Your task to perform on an android device: manage bookmarks in the chrome app Image 0: 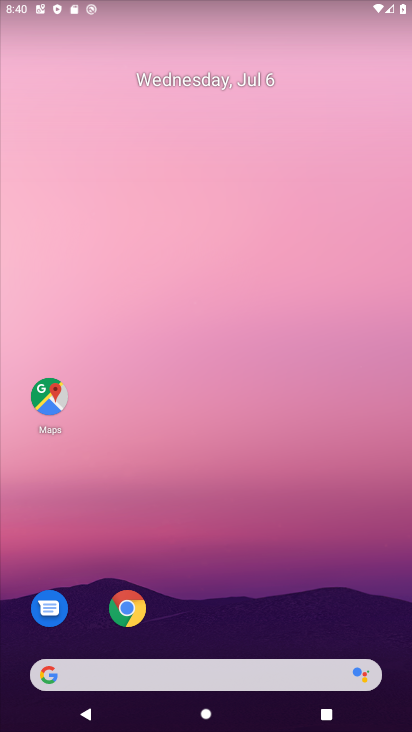
Step 0: click (114, 620)
Your task to perform on an android device: manage bookmarks in the chrome app Image 1: 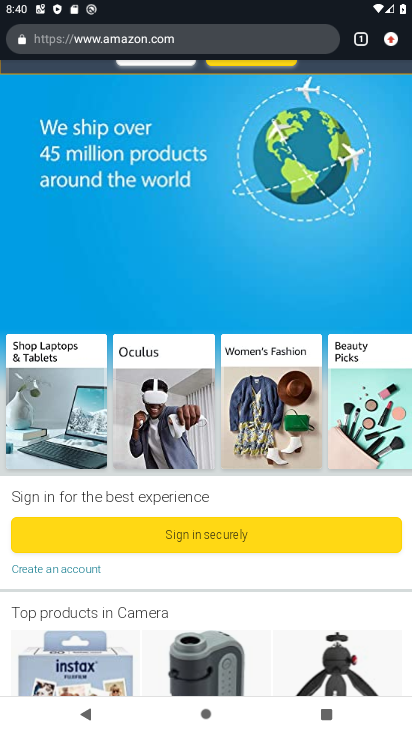
Step 1: press back button
Your task to perform on an android device: manage bookmarks in the chrome app Image 2: 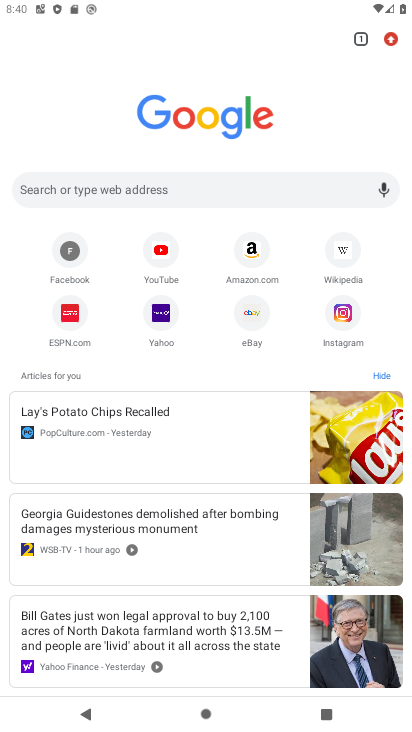
Step 2: click (392, 40)
Your task to perform on an android device: manage bookmarks in the chrome app Image 3: 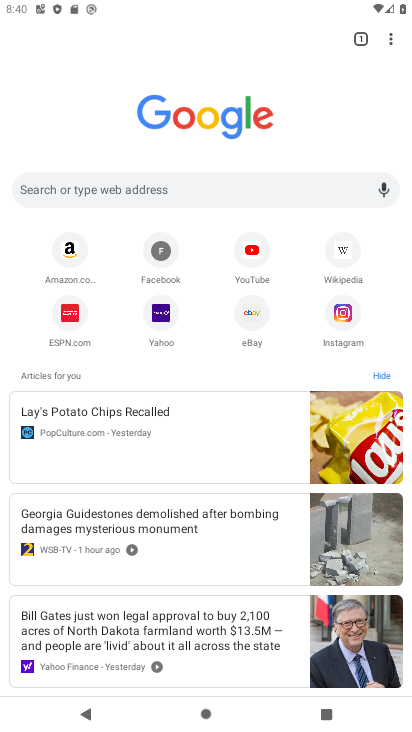
Step 3: click (392, 40)
Your task to perform on an android device: manage bookmarks in the chrome app Image 4: 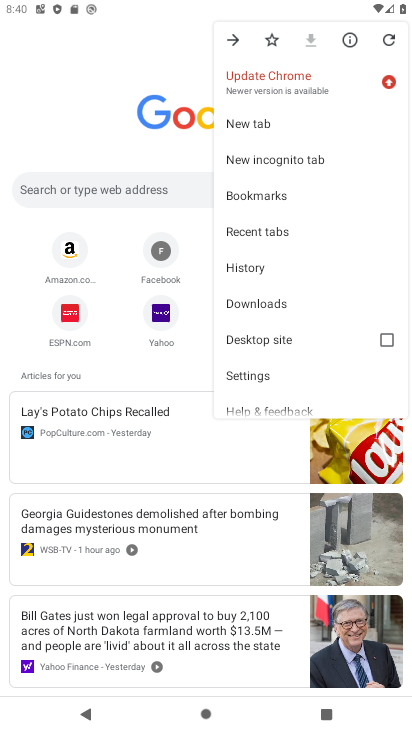
Step 4: click (251, 197)
Your task to perform on an android device: manage bookmarks in the chrome app Image 5: 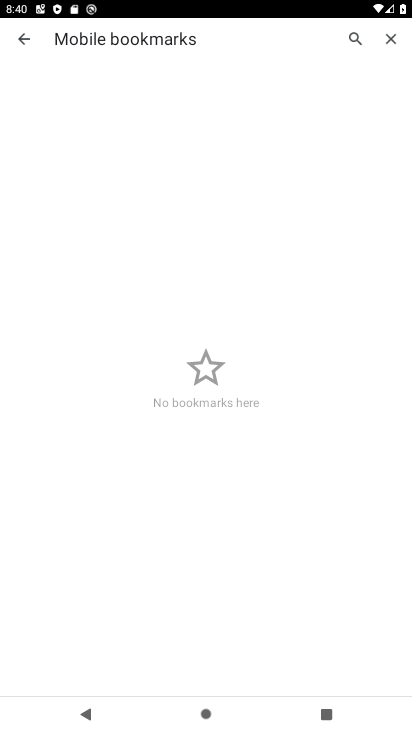
Step 5: task complete